Your task to perform on an android device: check the backup settings in the google photos Image 0: 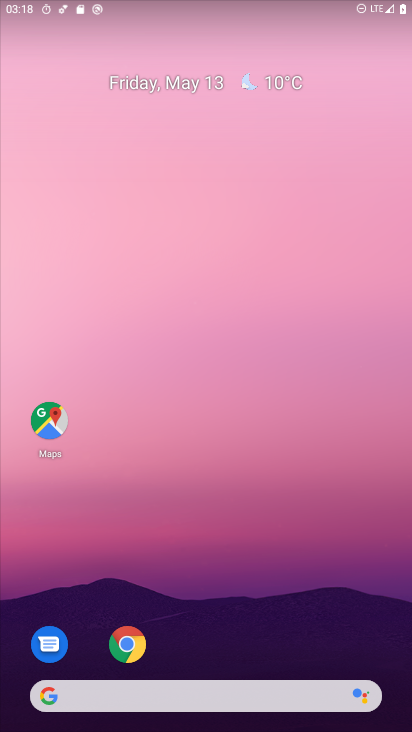
Step 0: drag from (347, 701) to (408, 369)
Your task to perform on an android device: check the backup settings in the google photos Image 1: 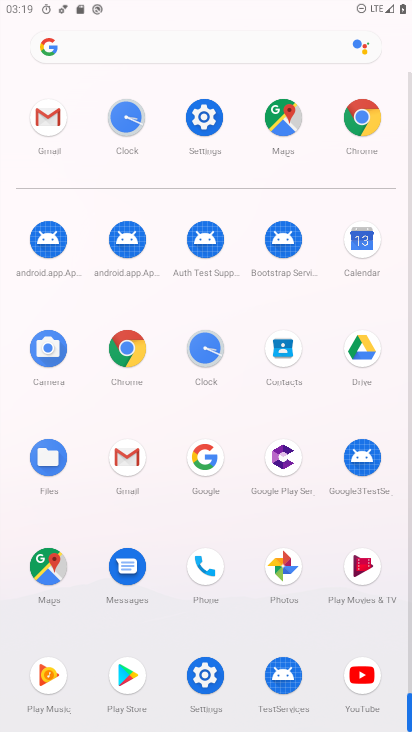
Step 1: click (279, 560)
Your task to perform on an android device: check the backup settings in the google photos Image 2: 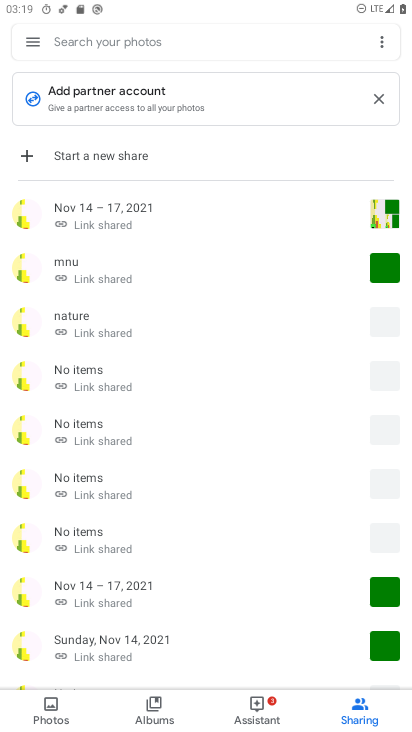
Step 2: click (42, 702)
Your task to perform on an android device: check the backup settings in the google photos Image 3: 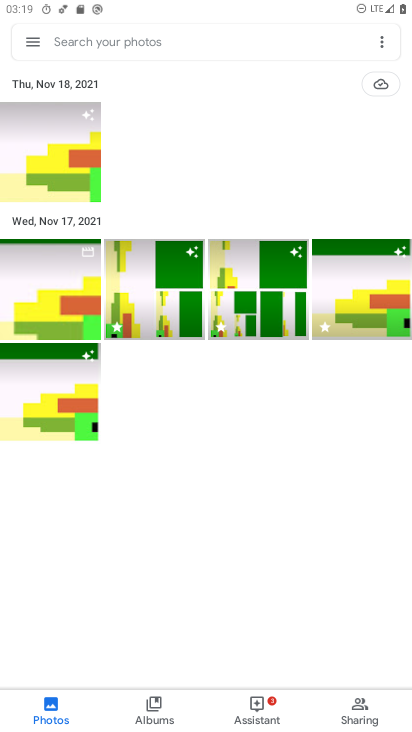
Step 3: click (33, 42)
Your task to perform on an android device: check the backup settings in the google photos Image 4: 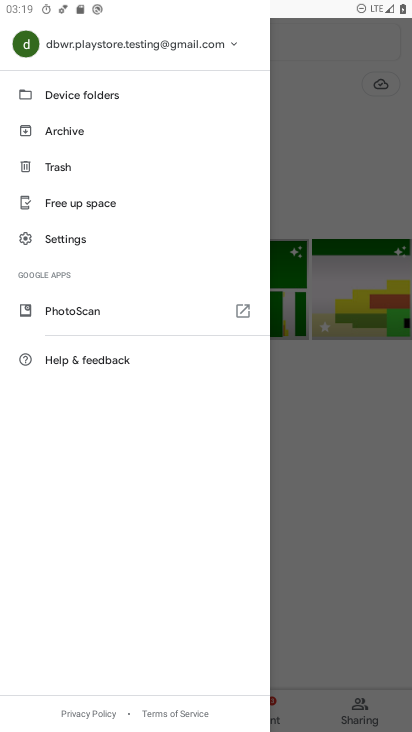
Step 4: click (82, 243)
Your task to perform on an android device: check the backup settings in the google photos Image 5: 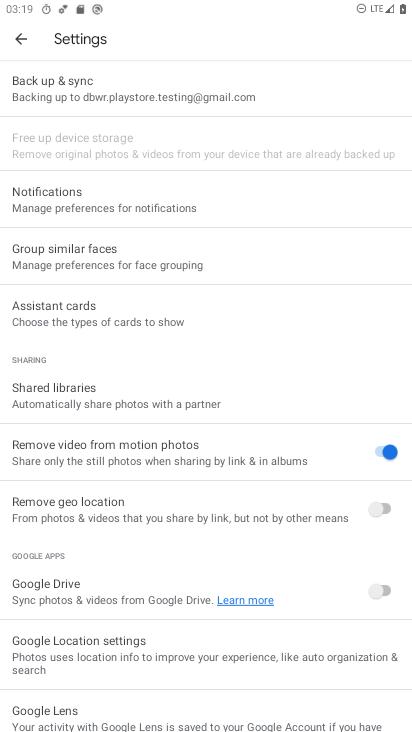
Step 5: click (163, 91)
Your task to perform on an android device: check the backup settings in the google photos Image 6: 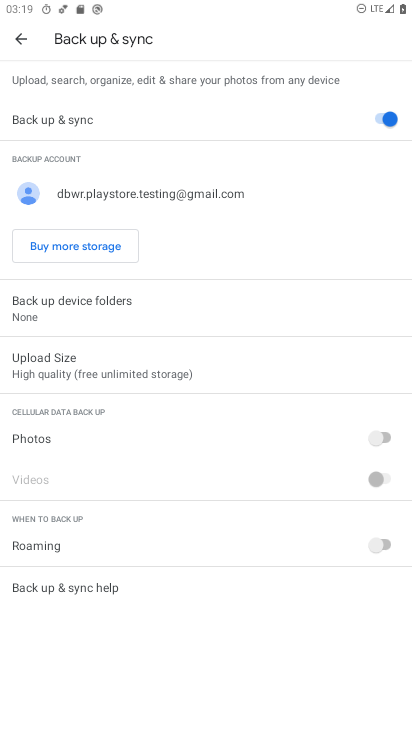
Step 6: task complete